Your task to perform on an android device: delete a single message in the gmail app Image 0: 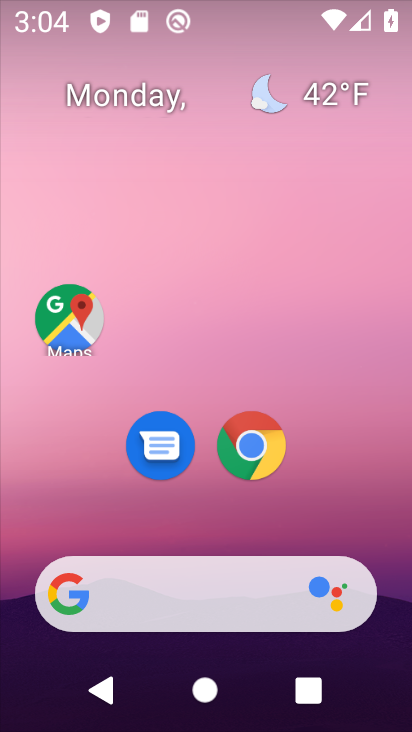
Step 0: drag from (8, 503) to (202, 93)
Your task to perform on an android device: delete a single message in the gmail app Image 1: 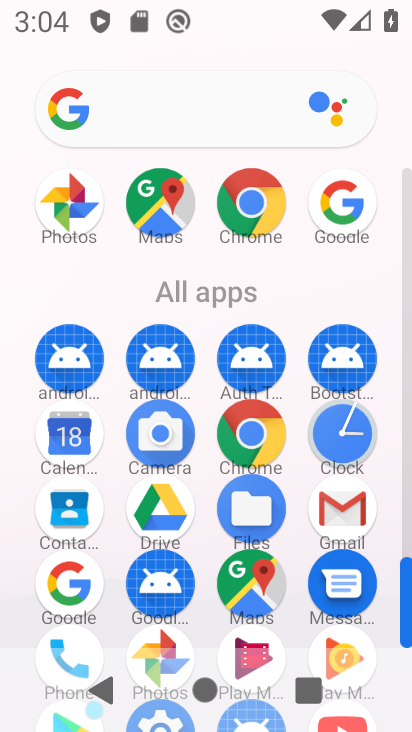
Step 1: click (341, 506)
Your task to perform on an android device: delete a single message in the gmail app Image 2: 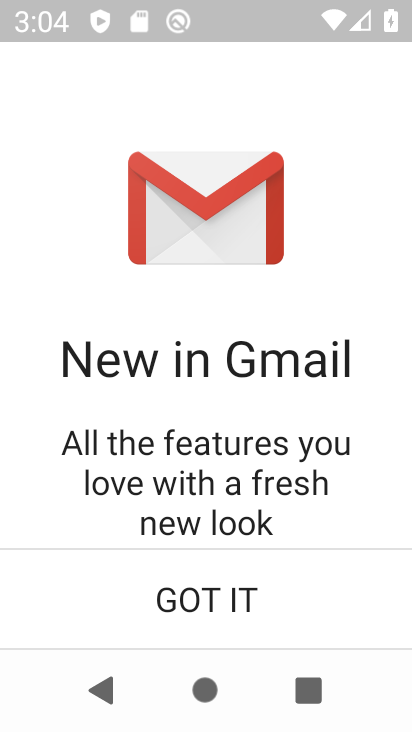
Step 2: click (135, 609)
Your task to perform on an android device: delete a single message in the gmail app Image 3: 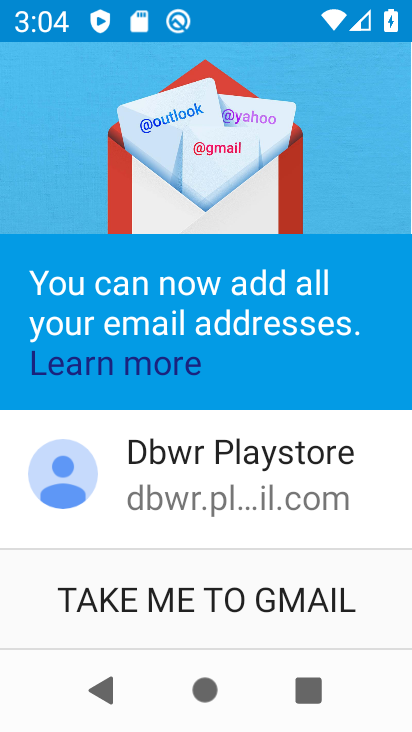
Step 3: click (218, 594)
Your task to perform on an android device: delete a single message in the gmail app Image 4: 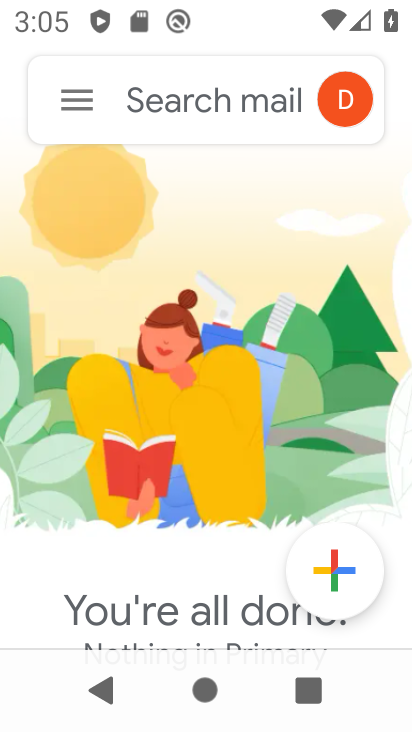
Step 4: task complete